Your task to perform on an android device: open a bookmark in the chrome app Image 0: 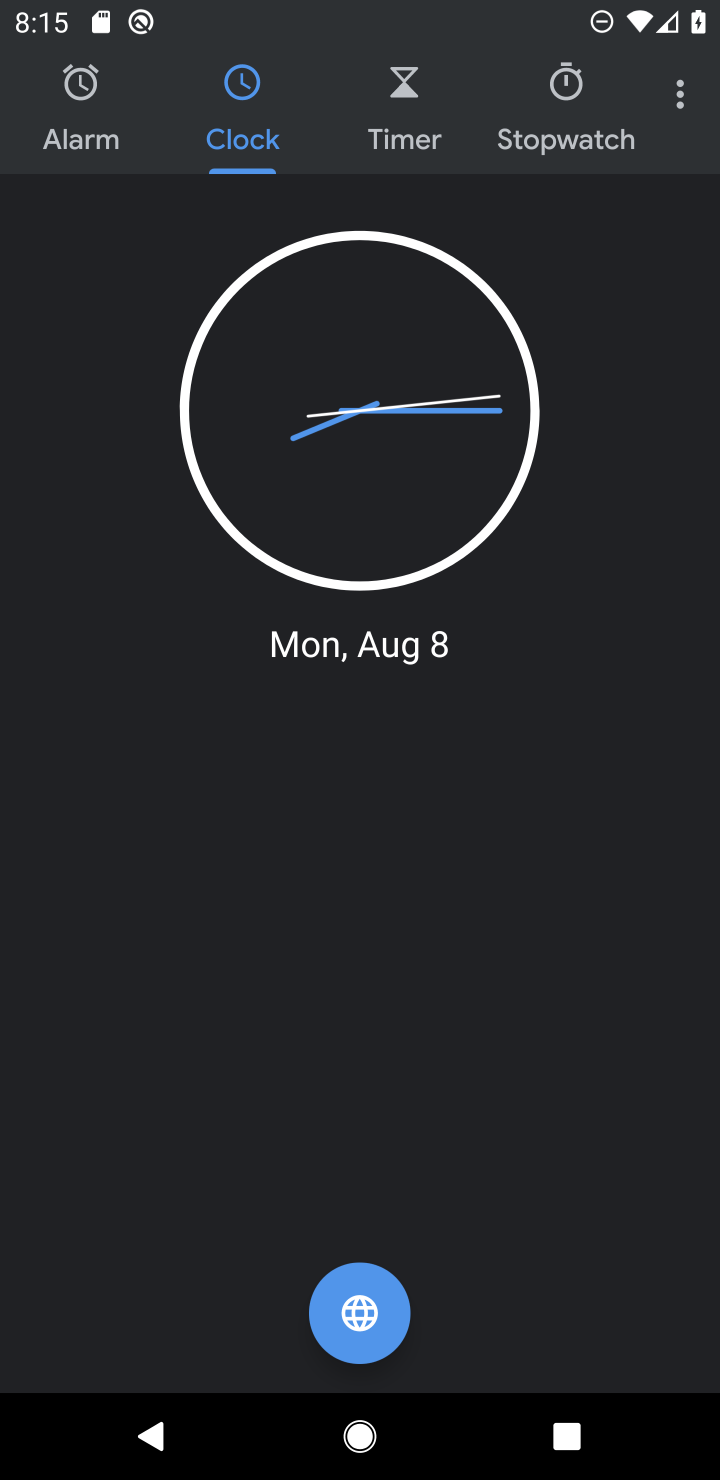
Step 0: press home button
Your task to perform on an android device: open a bookmark in the chrome app Image 1: 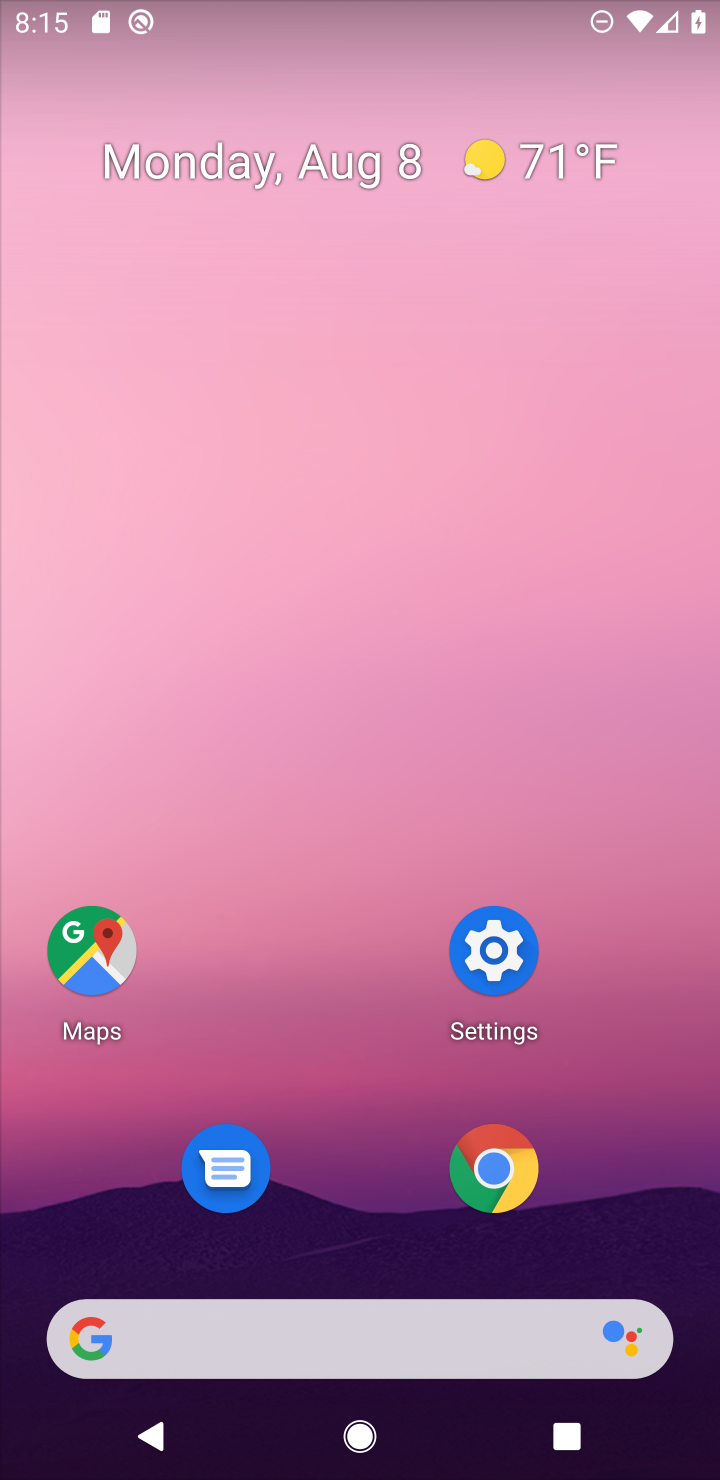
Step 1: click (501, 1169)
Your task to perform on an android device: open a bookmark in the chrome app Image 2: 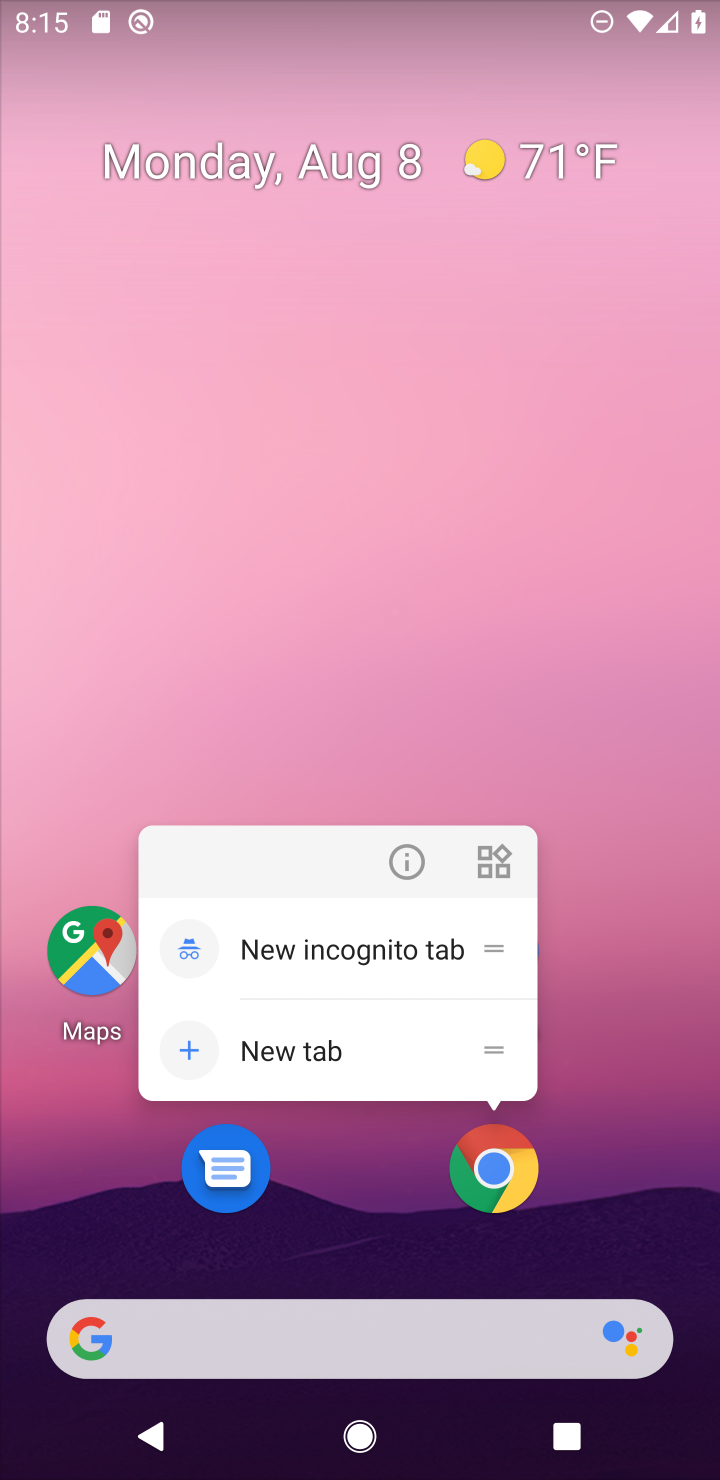
Step 2: click (497, 1174)
Your task to perform on an android device: open a bookmark in the chrome app Image 3: 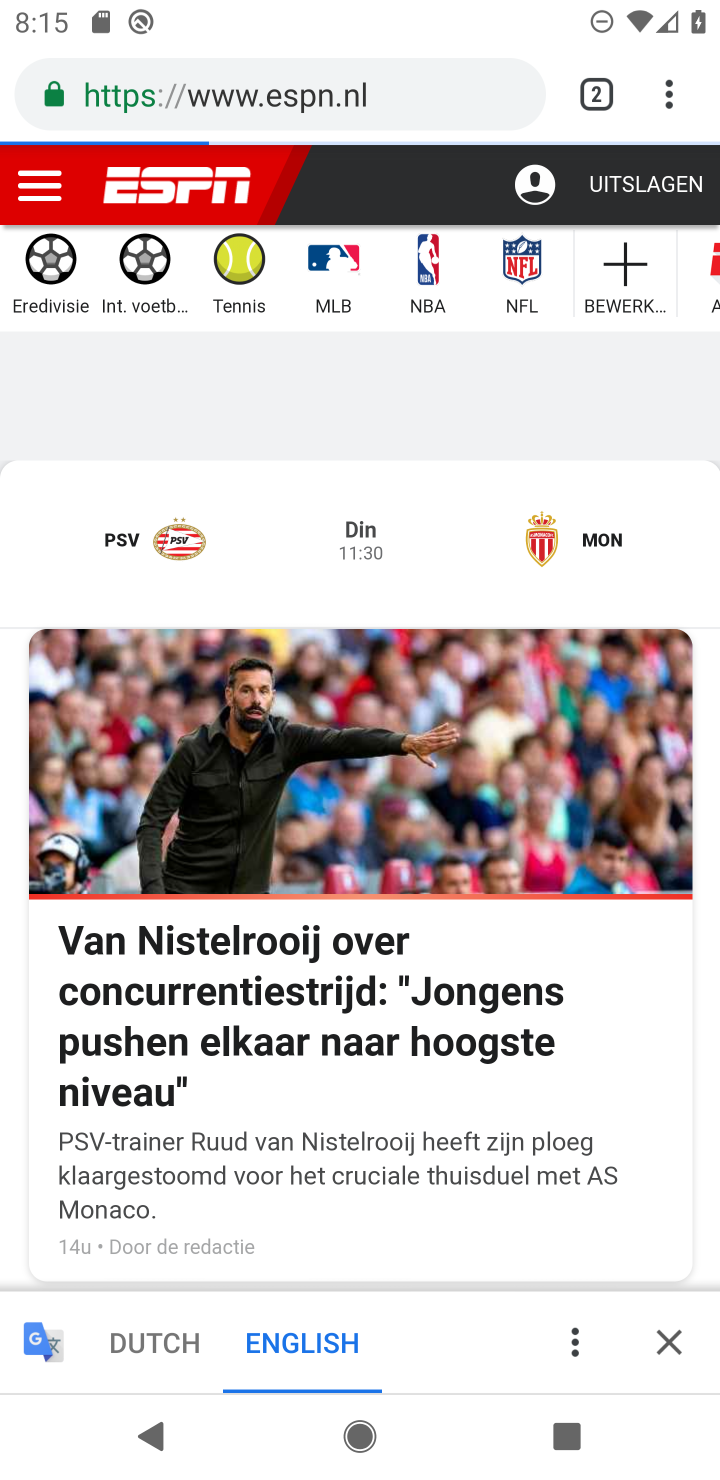
Step 3: task complete